Your task to perform on an android device: Do I have any events today? Image 0: 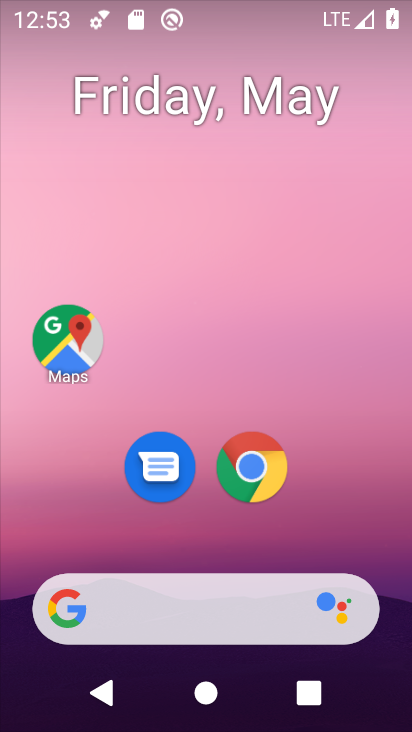
Step 0: drag from (360, 501) to (347, 129)
Your task to perform on an android device: Do I have any events today? Image 1: 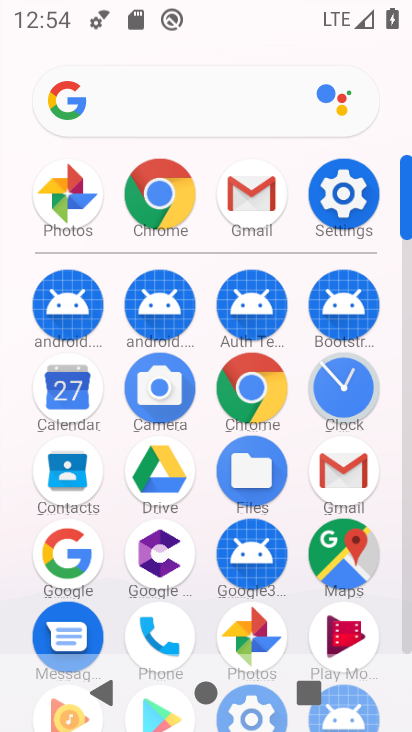
Step 1: click (71, 417)
Your task to perform on an android device: Do I have any events today? Image 2: 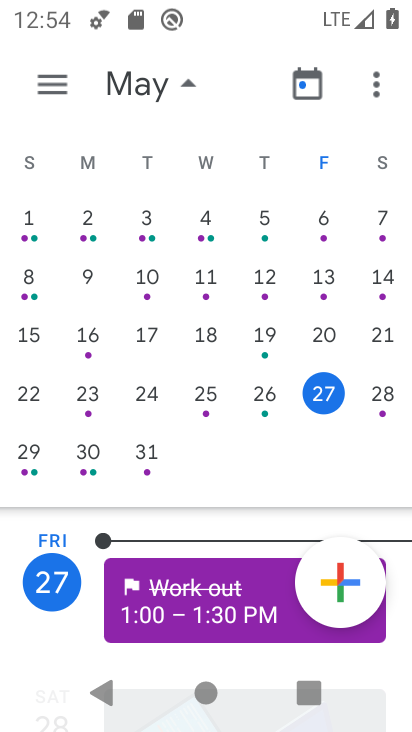
Step 2: task complete